Your task to perform on an android device: uninstall "Adobe Acrobat Reader: Edit PDF" Image 0: 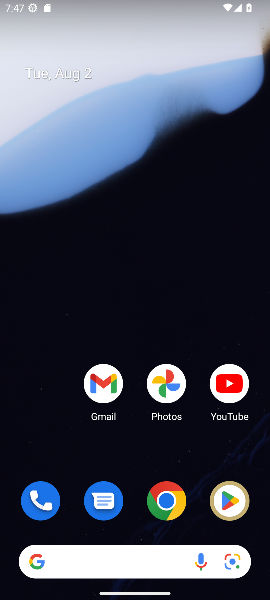
Step 0: drag from (130, 529) to (206, 12)
Your task to perform on an android device: uninstall "Adobe Acrobat Reader: Edit PDF" Image 1: 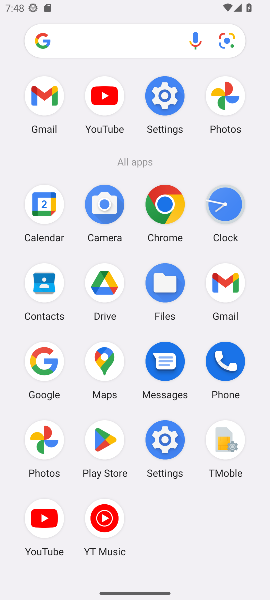
Step 1: click (94, 450)
Your task to perform on an android device: uninstall "Adobe Acrobat Reader: Edit PDF" Image 2: 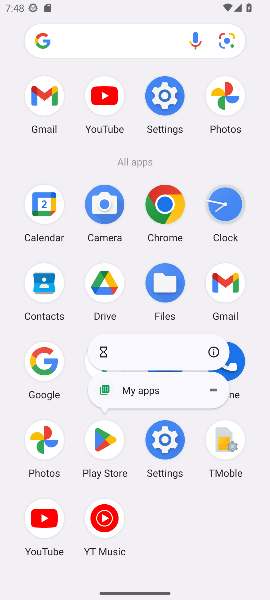
Step 2: click (219, 355)
Your task to perform on an android device: uninstall "Adobe Acrobat Reader: Edit PDF" Image 3: 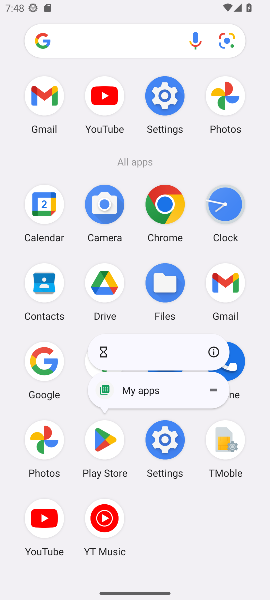
Step 3: click (213, 350)
Your task to perform on an android device: uninstall "Adobe Acrobat Reader: Edit PDF" Image 4: 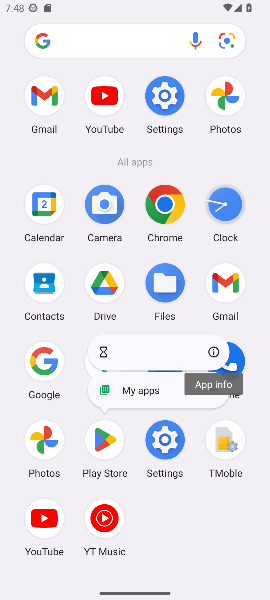
Step 4: click (212, 351)
Your task to perform on an android device: uninstall "Adobe Acrobat Reader: Edit PDF" Image 5: 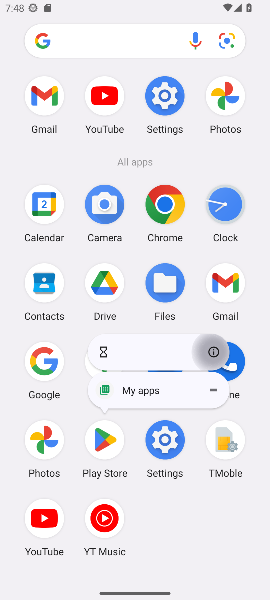
Step 5: click (212, 351)
Your task to perform on an android device: uninstall "Adobe Acrobat Reader: Edit PDF" Image 6: 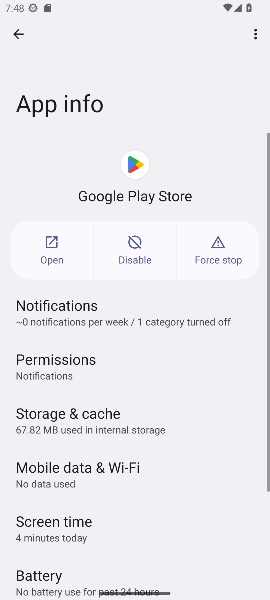
Step 6: click (53, 253)
Your task to perform on an android device: uninstall "Adobe Acrobat Reader: Edit PDF" Image 7: 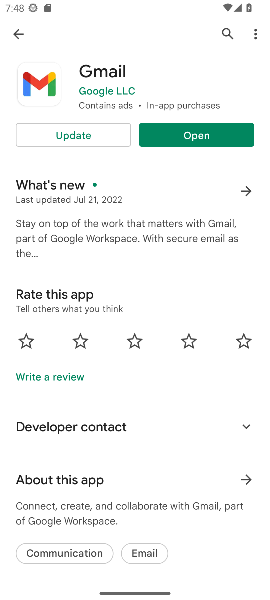
Step 7: drag from (173, 243) to (226, 378)
Your task to perform on an android device: uninstall "Adobe Acrobat Reader: Edit PDF" Image 8: 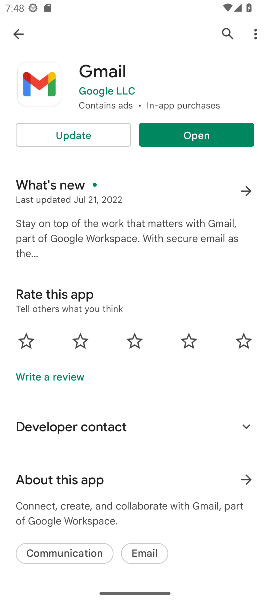
Step 8: click (225, 34)
Your task to perform on an android device: uninstall "Adobe Acrobat Reader: Edit PDF" Image 9: 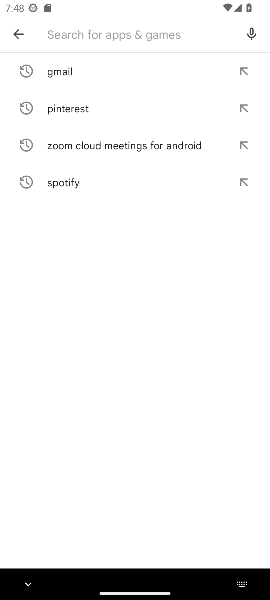
Step 9: type "Adobe Acrobat Reader: Edit PDF"
Your task to perform on an android device: uninstall "Adobe Acrobat Reader: Edit PDF" Image 10: 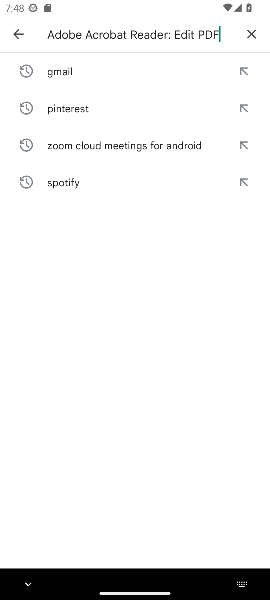
Step 10: type ""
Your task to perform on an android device: uninstall "Adobe Acrobat Reader: Edit PDF" Image 11: 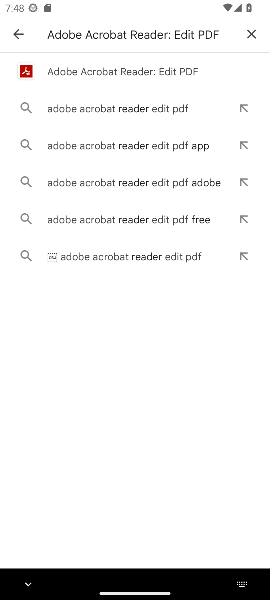
Step 11: click (113, 70)
Your task to perform on an android device: uninstall "Adobe Acrobat Reader: Edit PDF" Image 12: 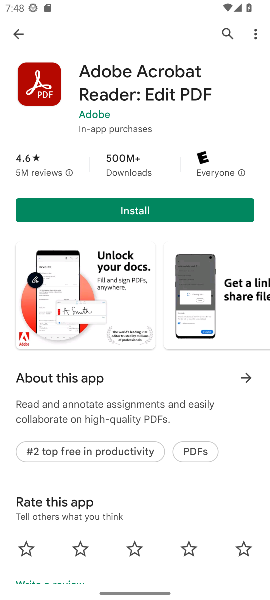
Step 12: task complete